Your task to perform on an android device: Go to notification settings Image 0: 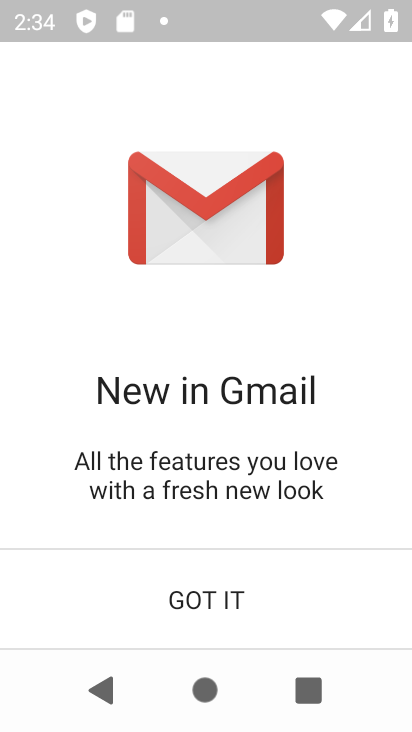
Step 0: press home button
Your task to perform on an android device: Go to notification settings Image 1: 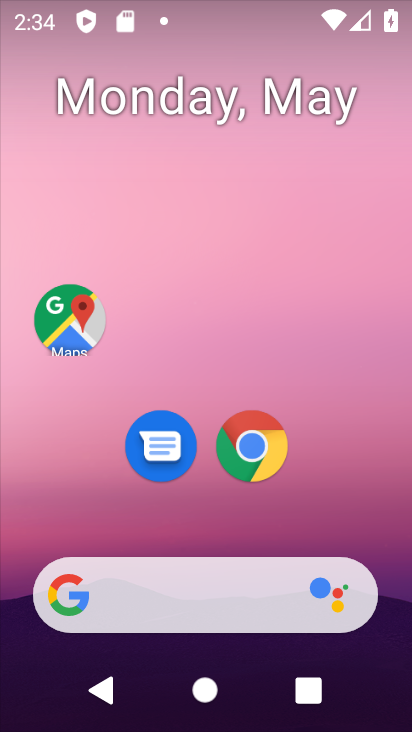
Step 1: drag from (138, 537) to (193, 138)
Your task to perform on an android device: Go to notification settings Image 2: 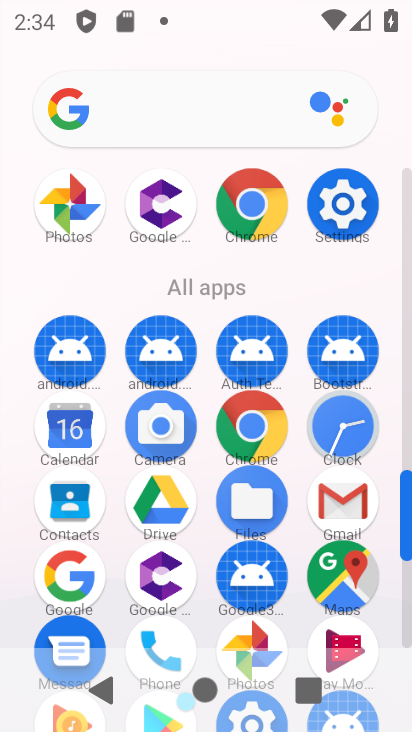
Step 2: drag from (59, 588) to (177, 271)
Your task to perform on an android device: Go to notification settings Image 3: 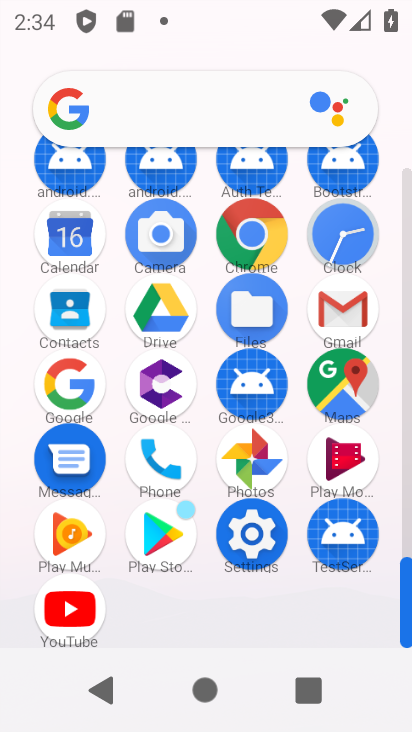
Step 3: click (269, 522)
Your task to perform on an android device: Go to notification settings Image 4: 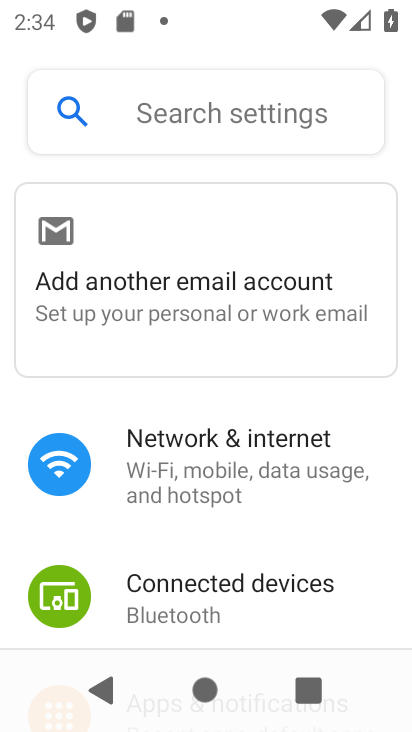
Step 4: drag from (218, 596) to (306, 352)
Your task to perform on an android device: Go to notification settings Image 5: 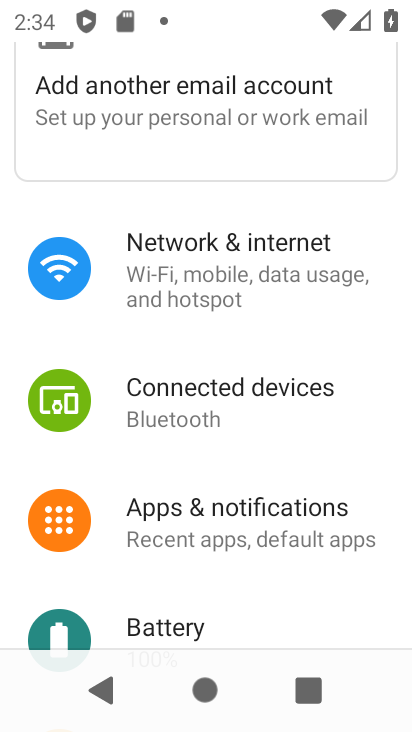
Step 5: click (260, 551)
Your task to perform on an android device: Go to notification settings Image 6: 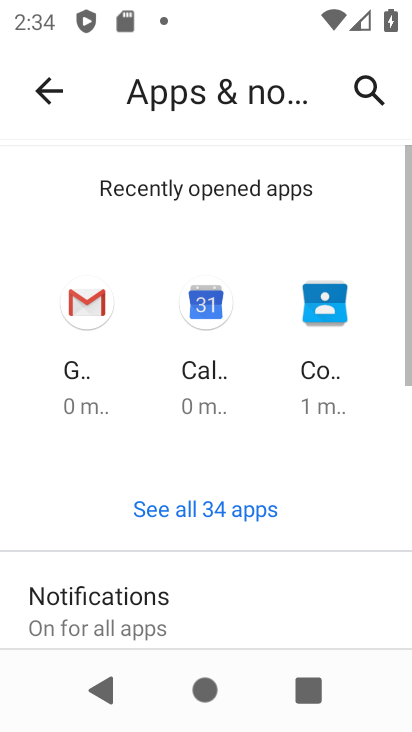
Step 6: click (209, 595)
Your task to perform on an android device: Go to notification settings Image 7: 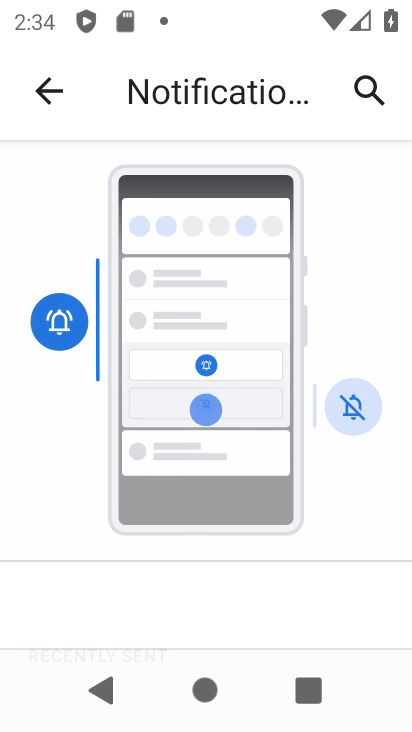
Step 7: task complete